Your task to perform on an android device: Open the map Image 0: 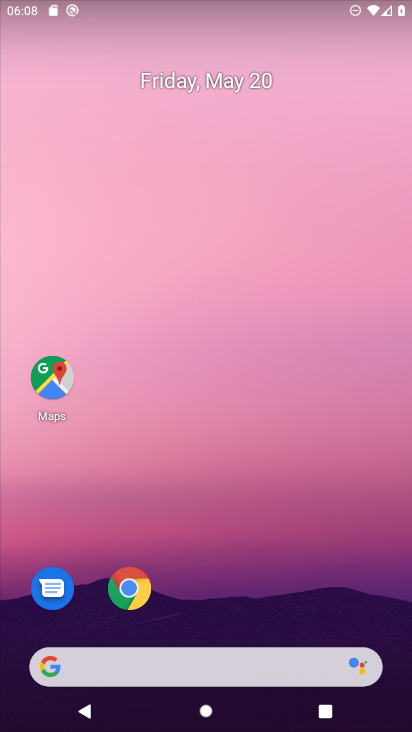
Step 0: click (41, 376)
Your task to perform on an android device: Open the map Image 1: 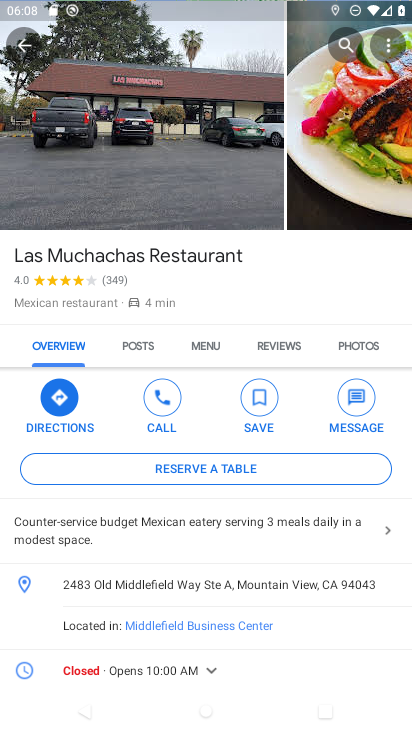
Step 1: task complete